Your task to perform on an android device: Go to Yahoo.com Image 0: 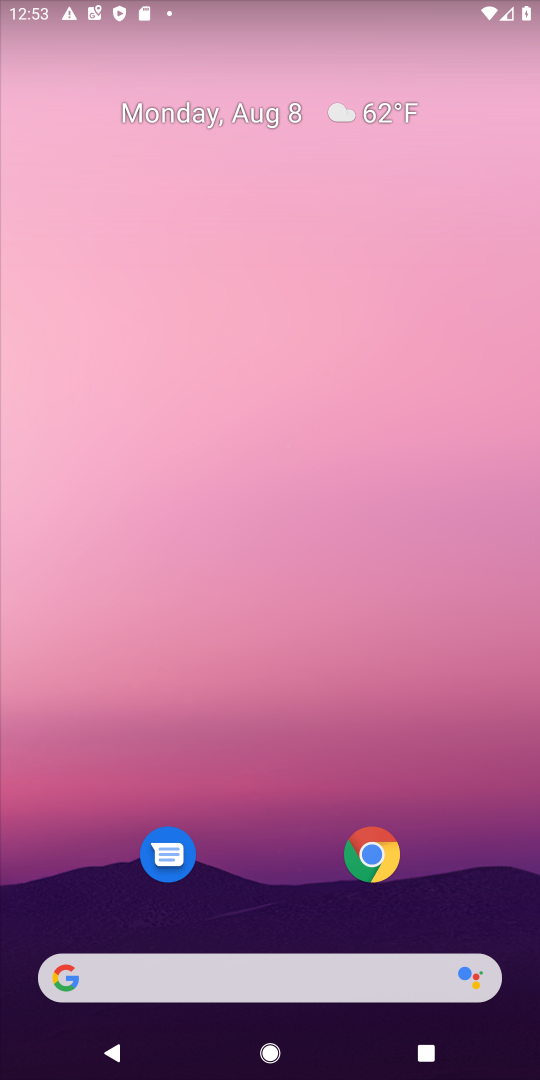
Step 0: press home button
Your task to perform on an android device: Go to Yahoo.com Image 1: 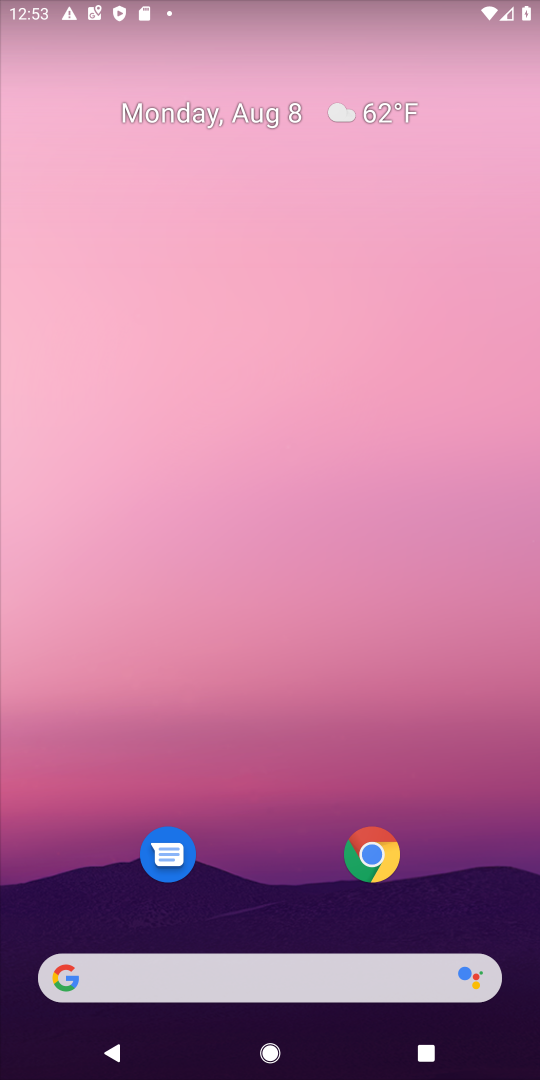
Step 1: click (51, 973)
Your task to perform on an android device: Go to Yahoo.com Image 2: 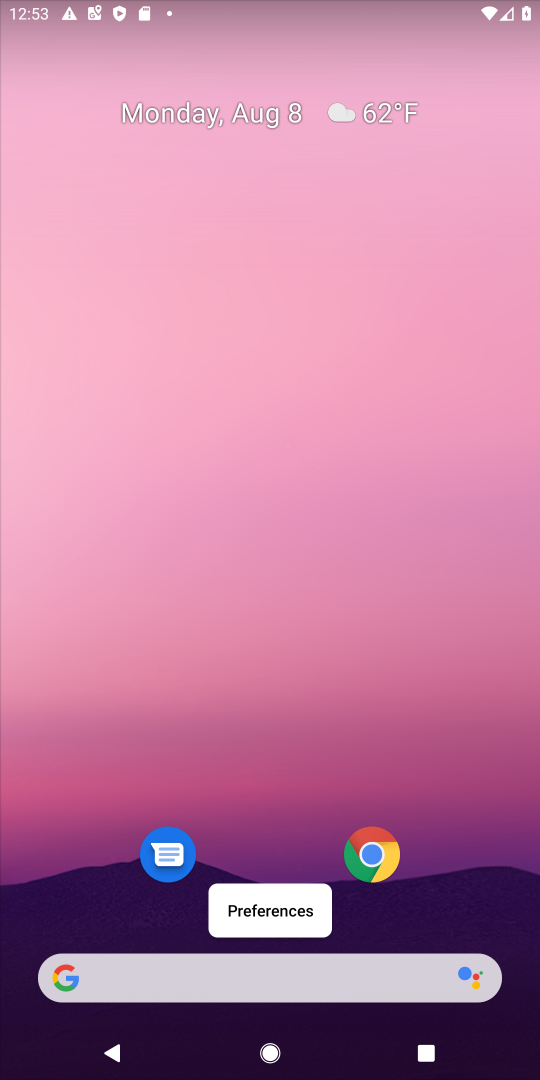
Step 2: click (53, 979)
Your task to perform on an android device: Go to Yahoo.com Image 3: 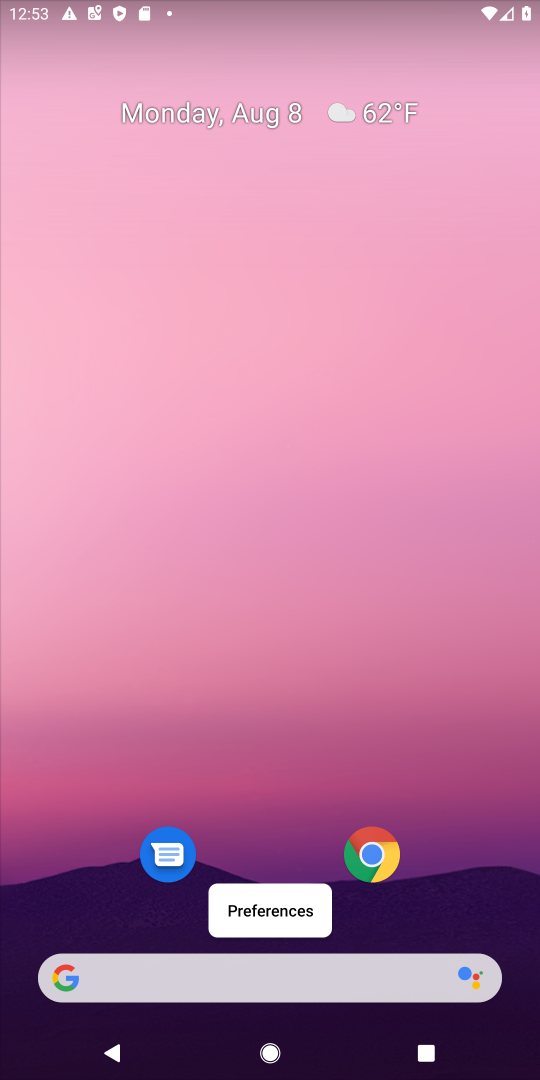
Step 3: click (68, 979)
Your task to perform on an android device: Go to Yahoo.com Image 4: 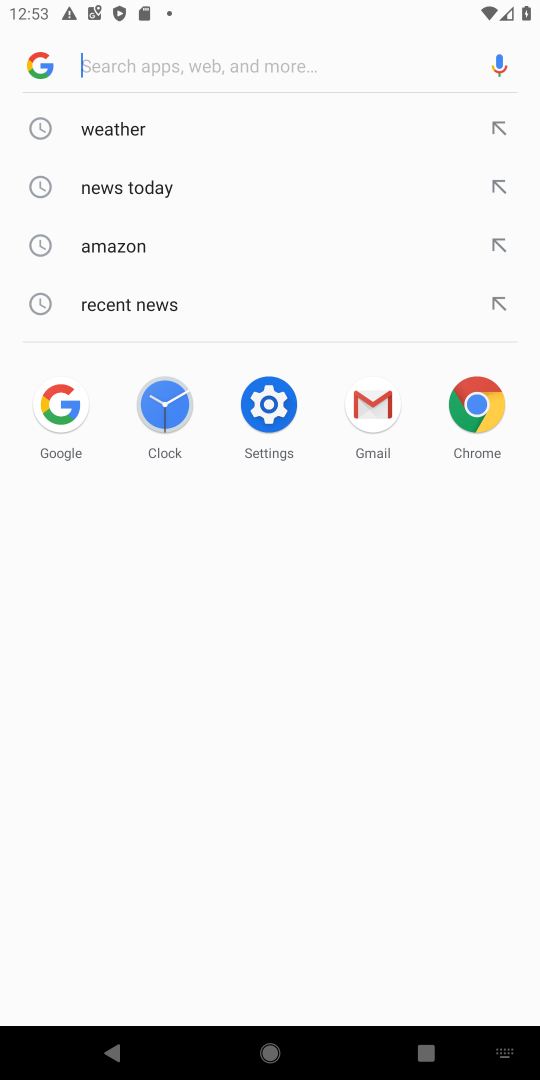
Step 4: type "Yahoo.com"
Your task to perform on an android device: Go to Yahoo.com Image 5: 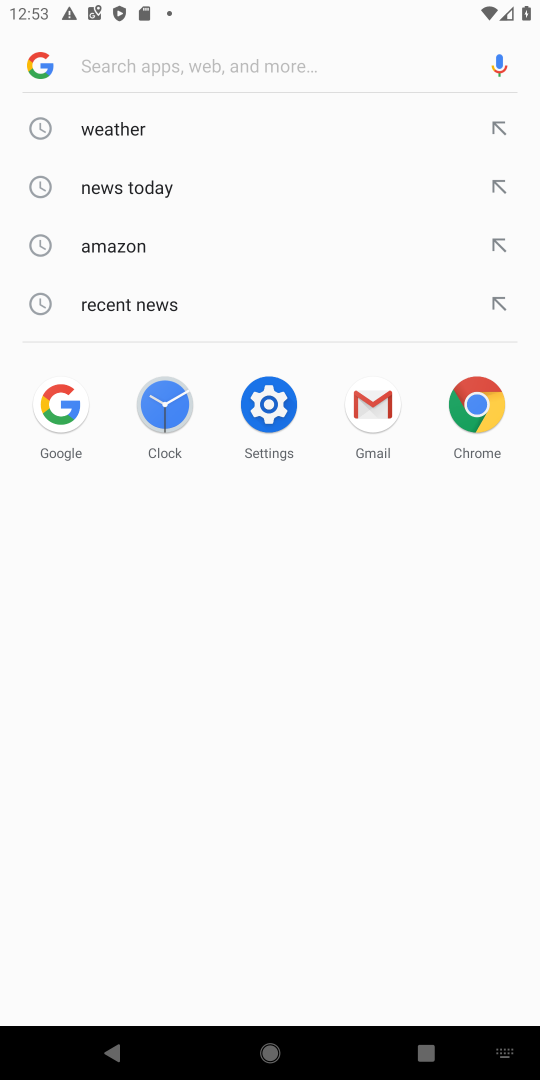
Step 5: click (201, 48)
Your task to perform on an android device: Go to Yahoo.com Image 6: 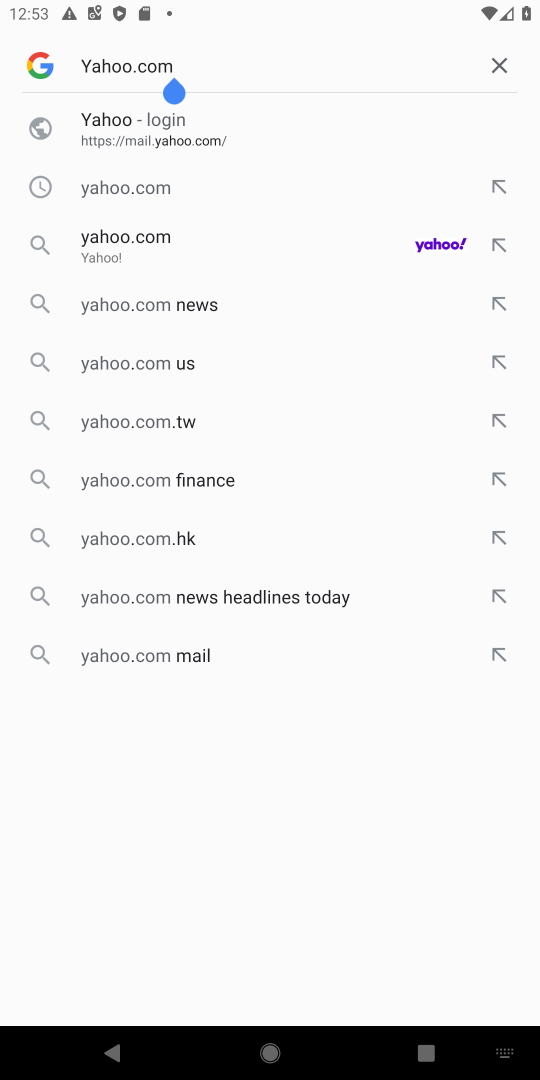
Step 6: click (445, 240)
Your task to perform on an android device: Go to Yahoo.com Image 7: 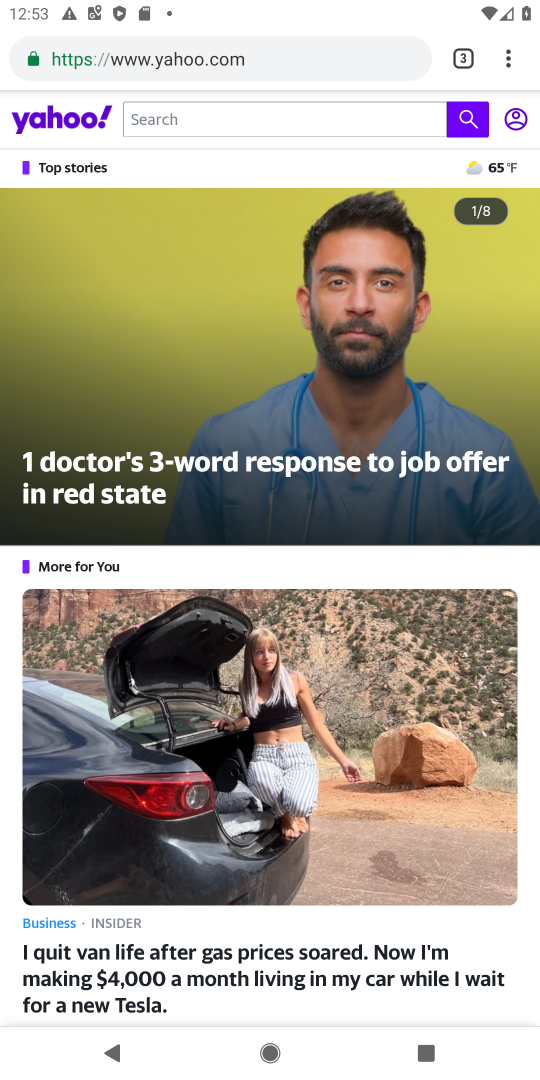
Step 7: task complete